Your task to perform on an android device: open a bookmark in the chrome app Image 0: 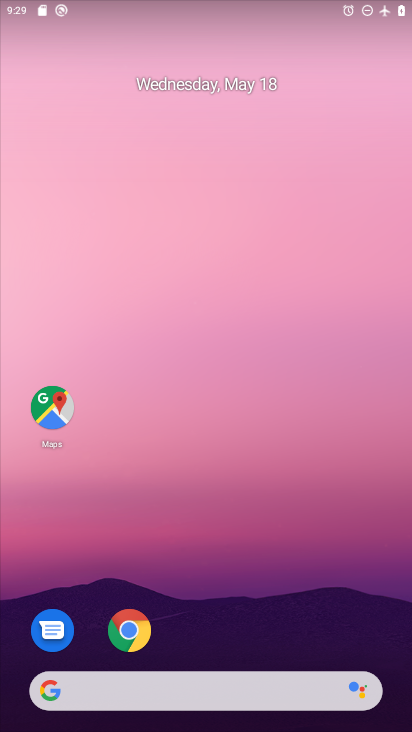
Step 0: click (144, 632)
Your task to perform on an android device: open a bookmark in the chrome app Image 1: 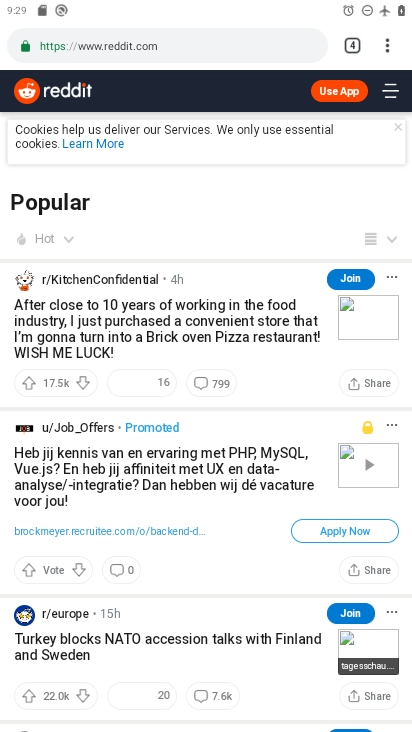
Step 1: click (389, 42)
Your task to perform on an android device: open a bookmark in the chrome app Image 2: 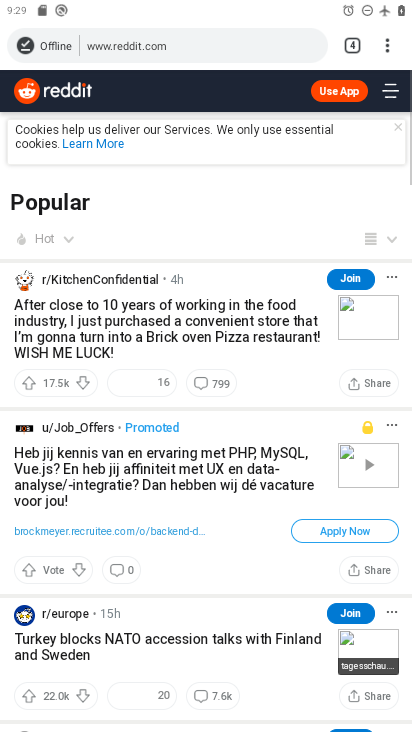
Step 2: task complete